Your task to perform on an android device: turn off smart reply in the gmail app Image 0: 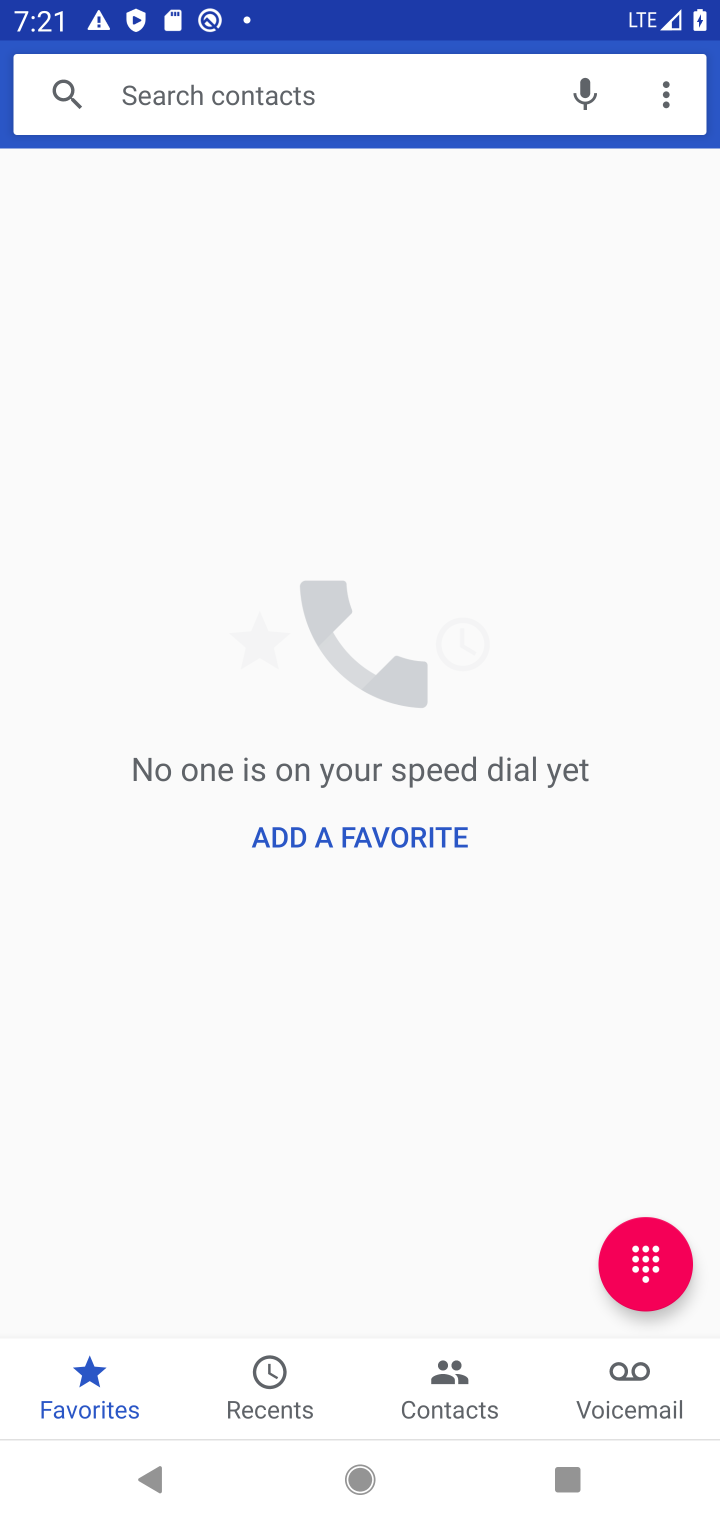
Step 0: press home button
Your task to perform on an android device: turn off smart reply in the gmail app Image 1: 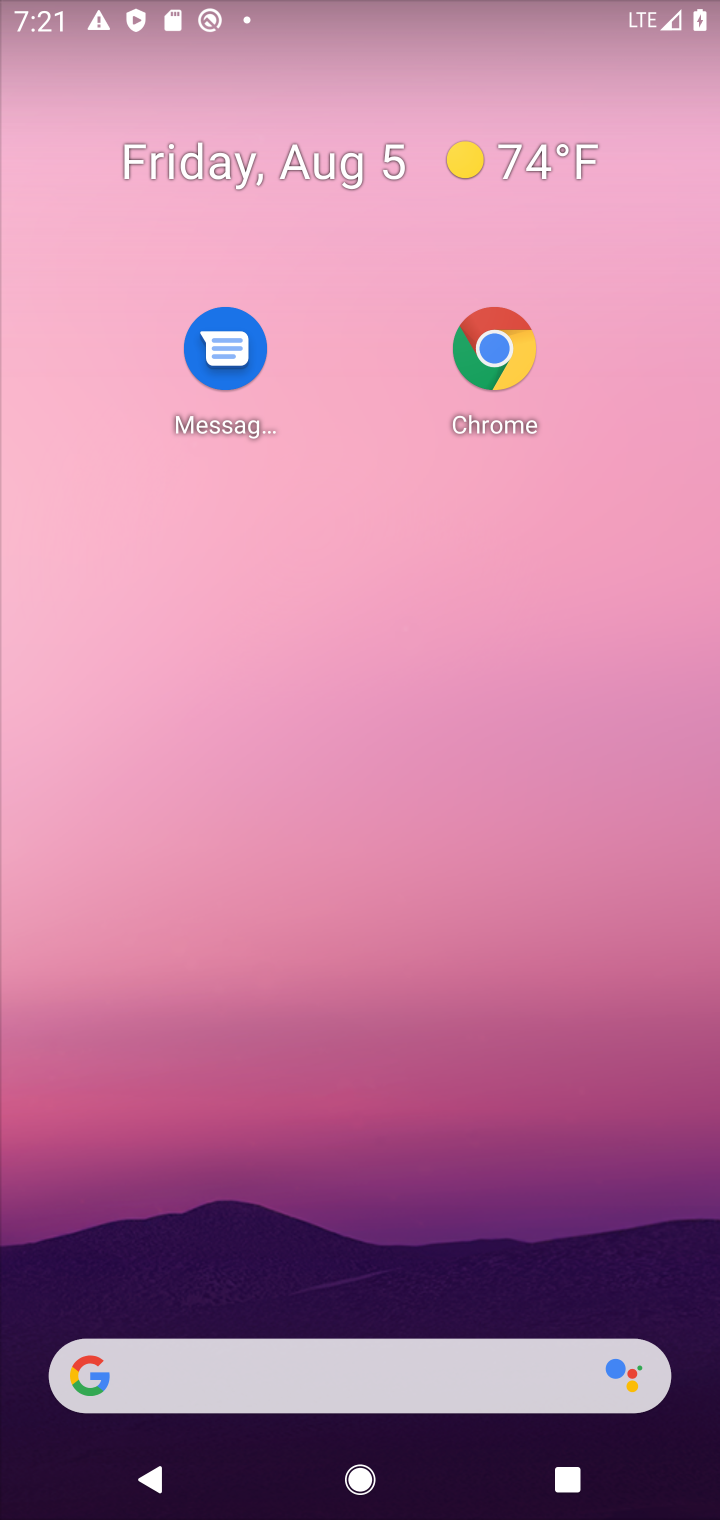
Step 1: drag from (453, 1370) to (534, 187)
Your task to perform on an android device: turn off smart reply in the gmail app Image 2: 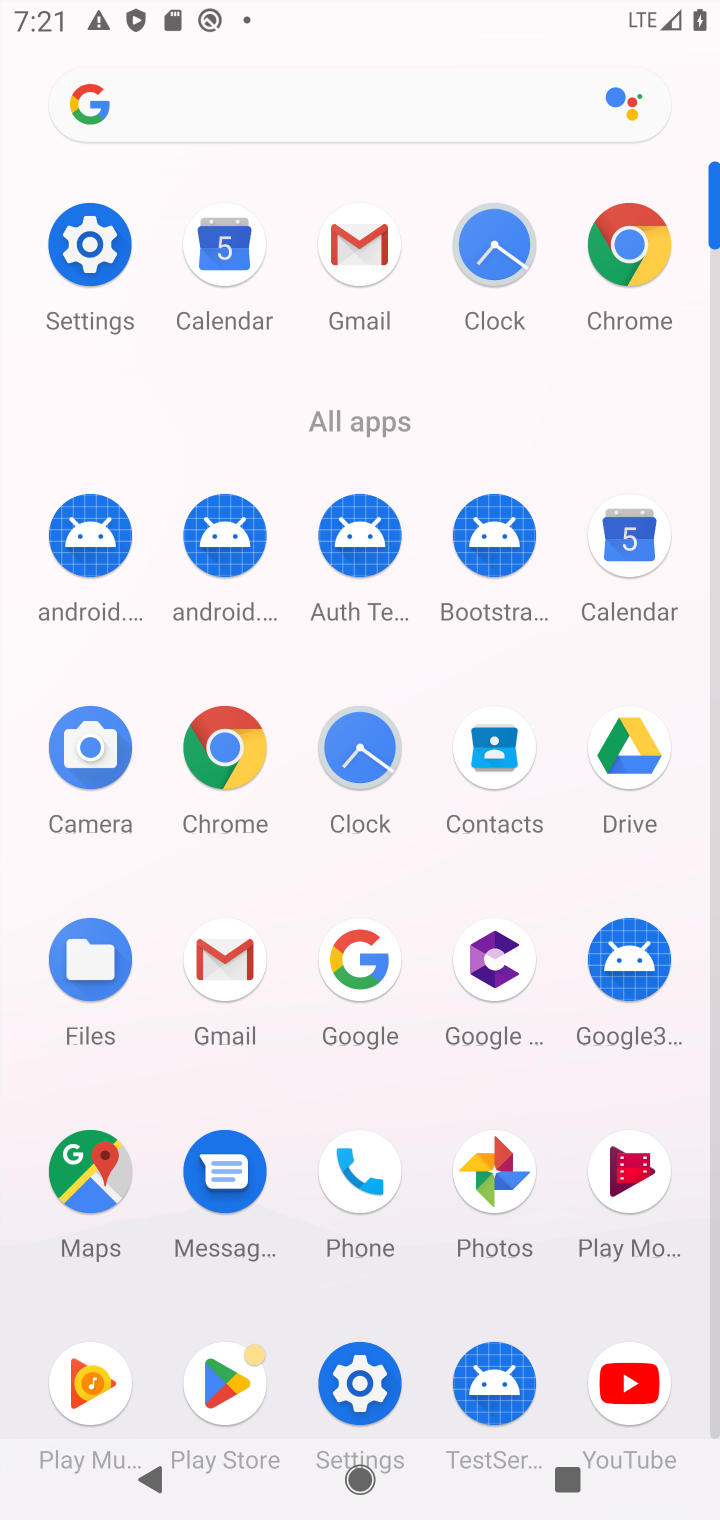
Step 2: click (221, 971)
Your task to perform on an android device: turn off smart reply in the gmail app Image 3: 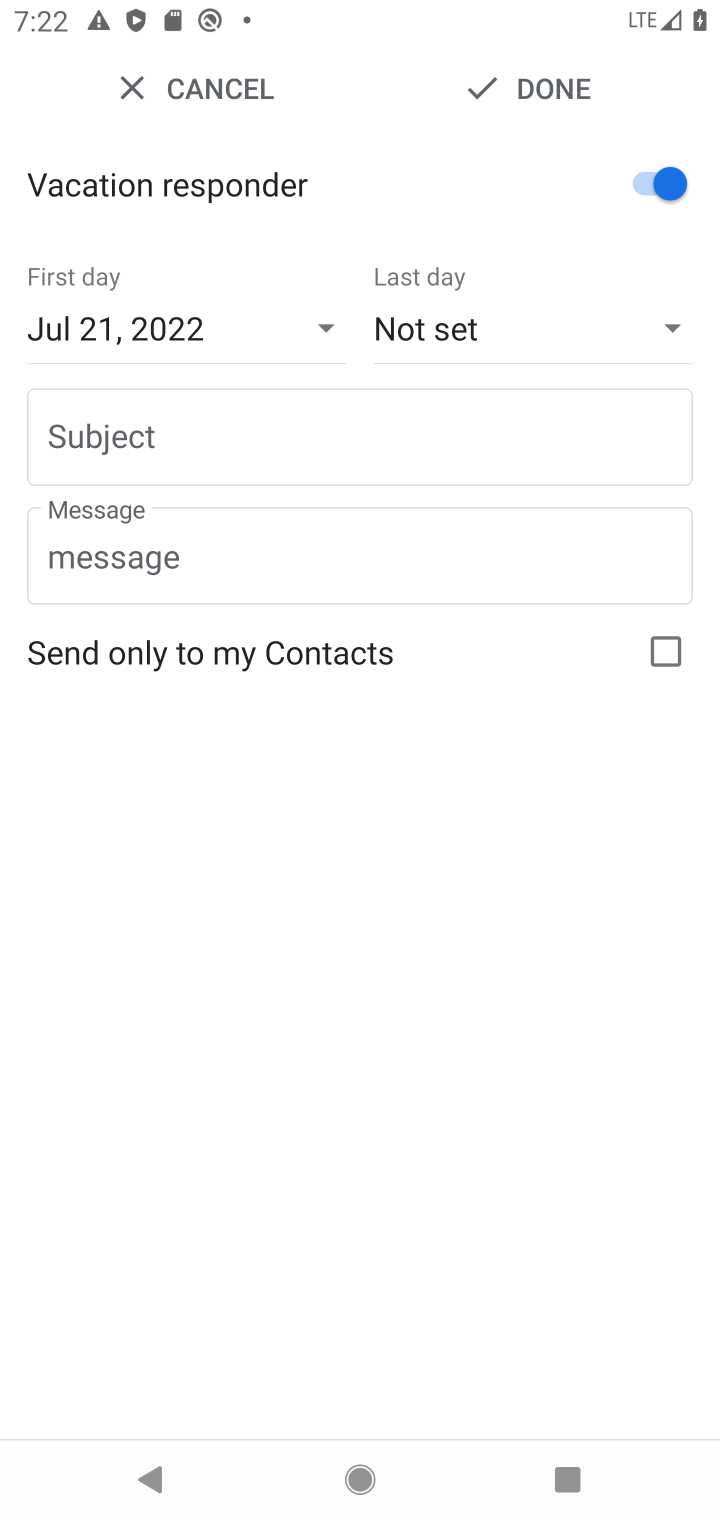
Step 3: click (107, 100)
Your task to perform on an android device: turn off smart reply in the gmail app Image 4: 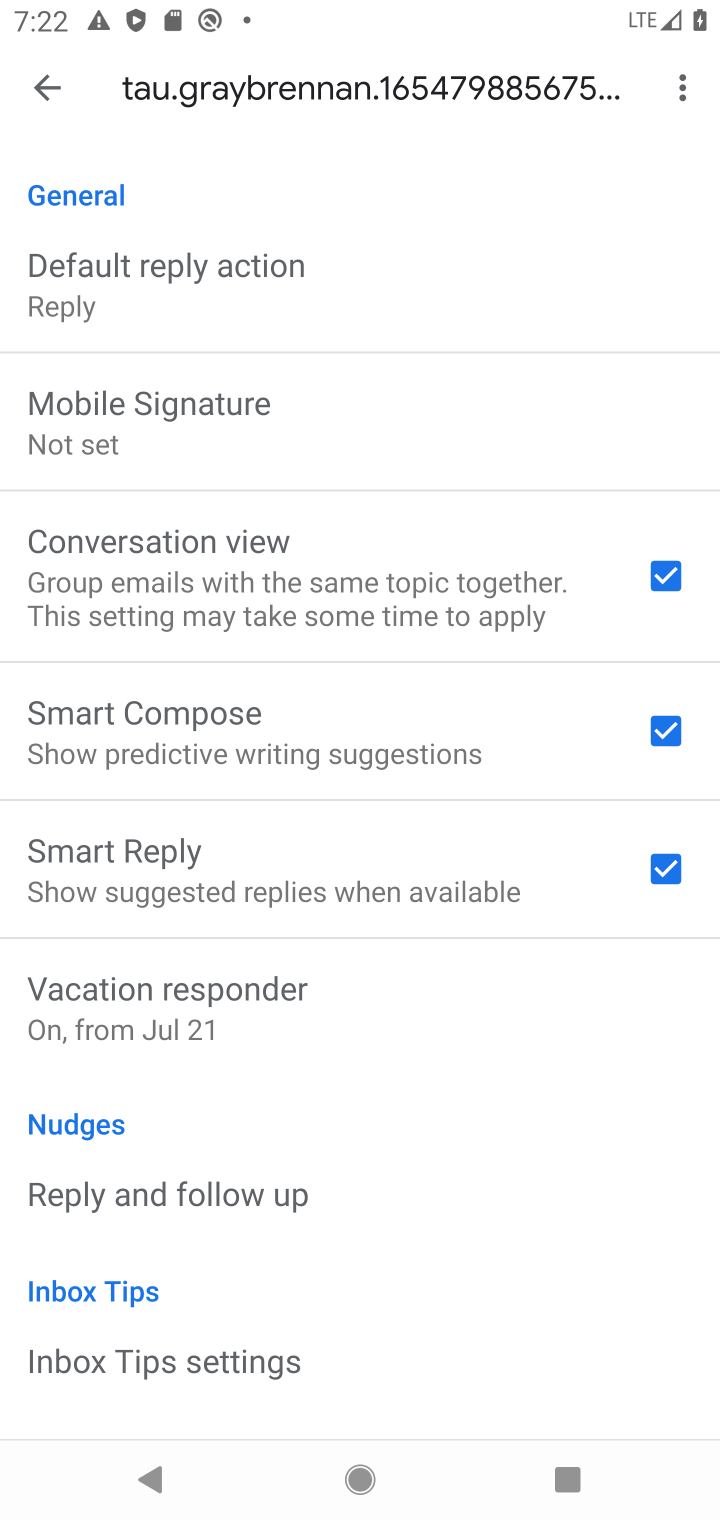
Step 4: click (653, 863)
Your task to perform on an android device: turn off smart reply in the gmail app Image 5: 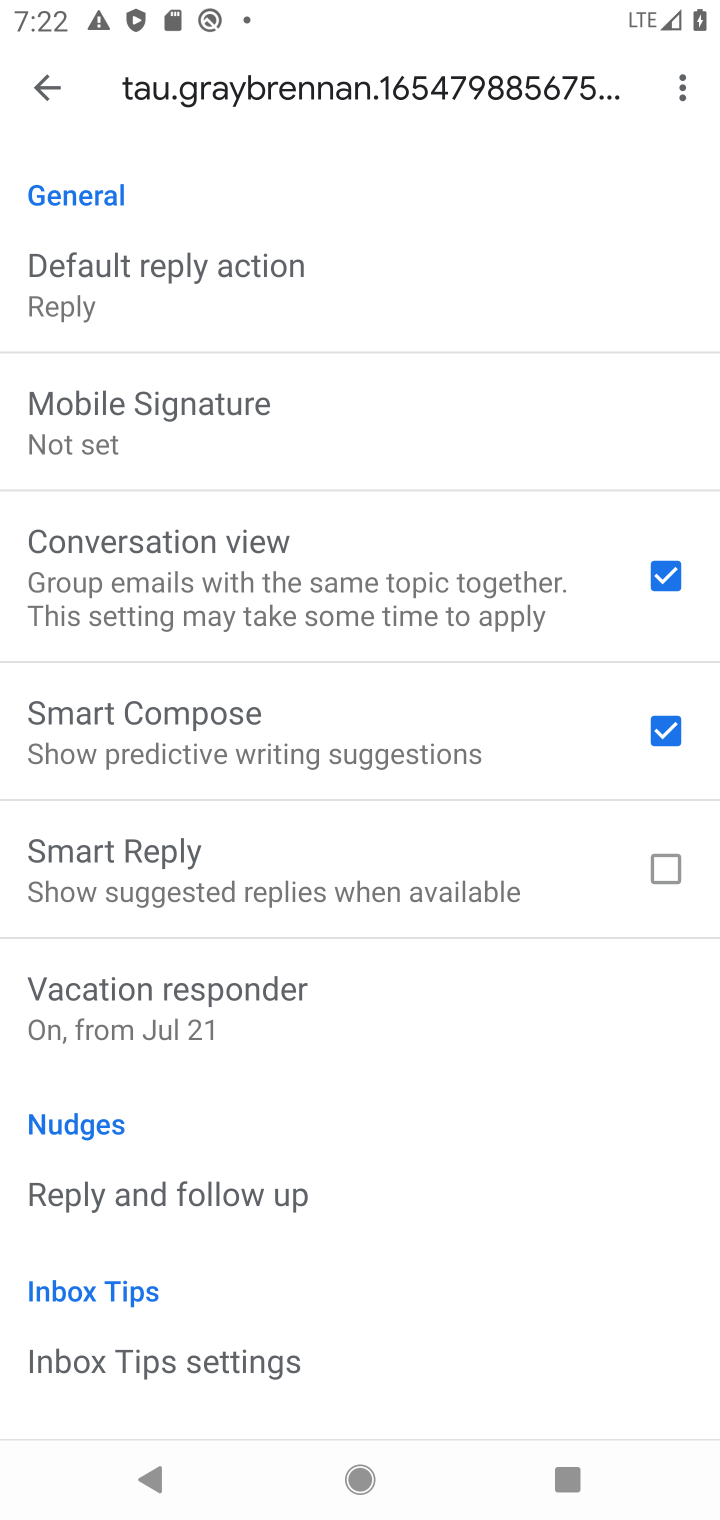
Step 5: task complete